Your task to perform on an android device: turn on priority inbox in the gmail app Image 0: 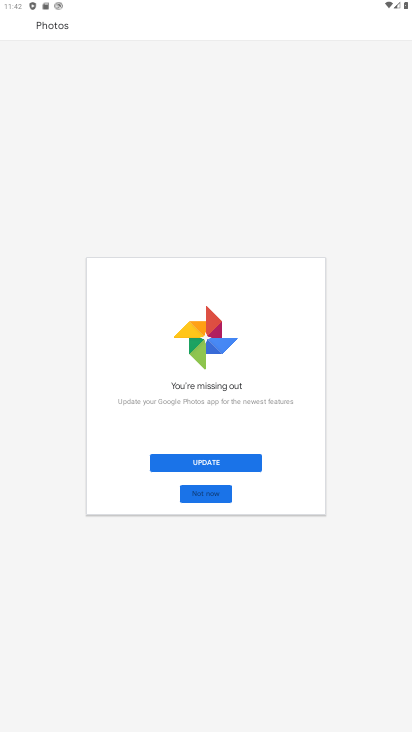
Step 0: press home button
Your task to perform on an android device: turn on priority inbox in the gmail app Image 1: 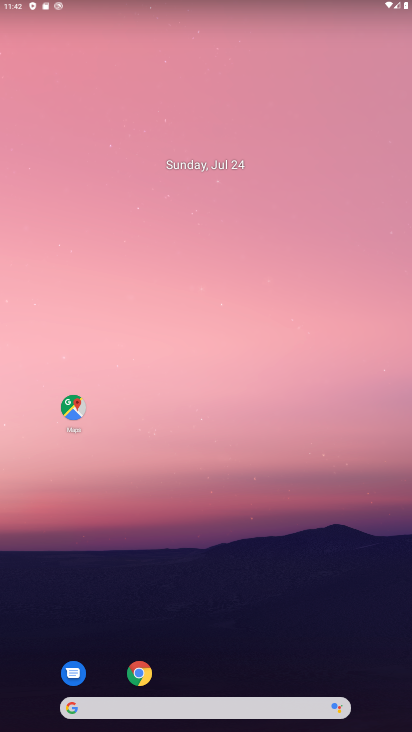
Step 1: drag from (220, 689) to (157, 61)
Your task to perform on an android device: turn on priority inbox in the gmail app Image 2: 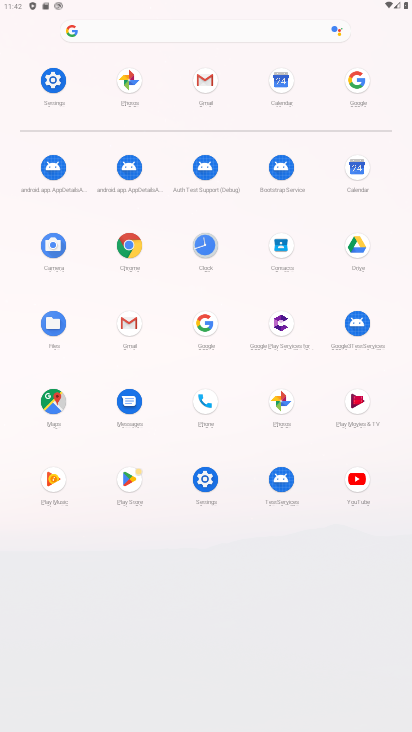
Step 2: click (205, 79)
Your task to perform on an android device: turn on priority inbox in the gmail app Image 3: 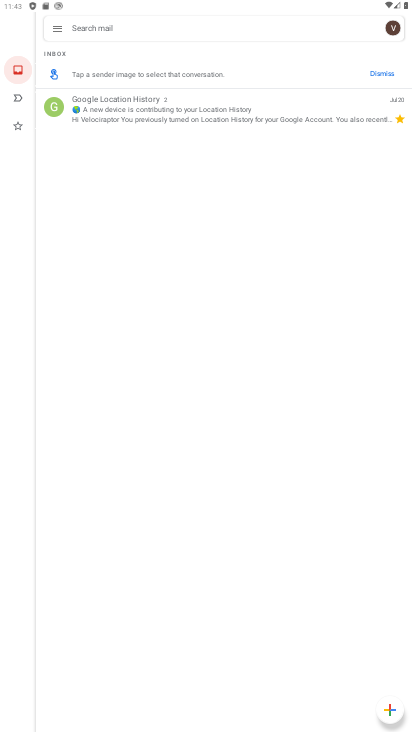
Step 3: click (58, 29)
Your task to perform on an android device: turn on priority inbox in the gmail app Image 4: 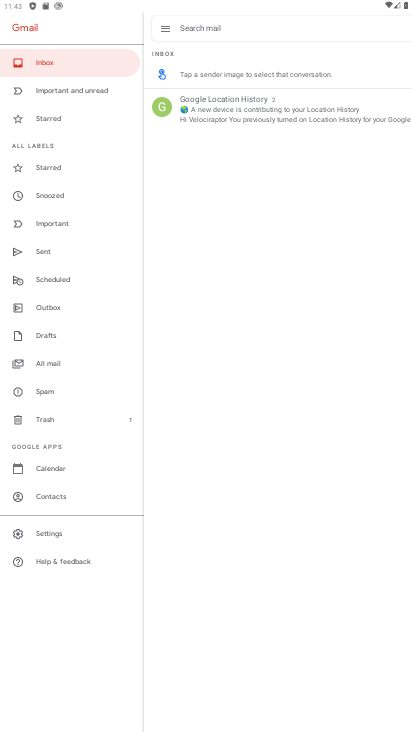
Step 4: click (53, 534)
Your task to perform on an android device: turn on priority inbox in the gmail app Image 5: 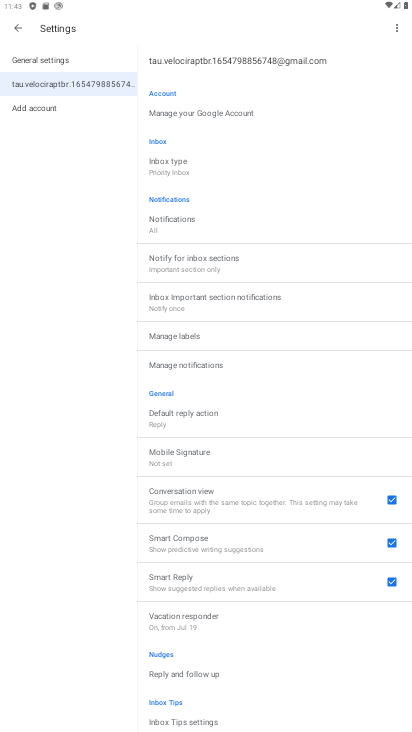
Step 5: click (186, 174)
Your task to perform on an android device: turn on priority inbox in the gmail app Image 6: 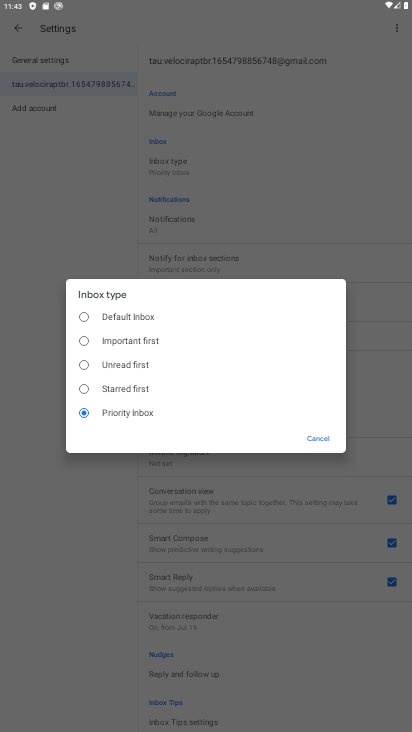
Step 6: click (83, 411)
Your task to perform on an android device: turn on priority inbox in the gmail app Image 7: 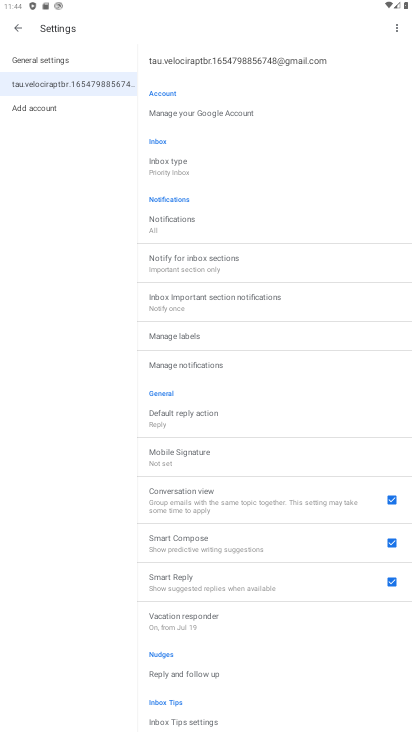
Step 7: task complete